Your task to perform on an android device: turn off notifications in google photos Image 0: 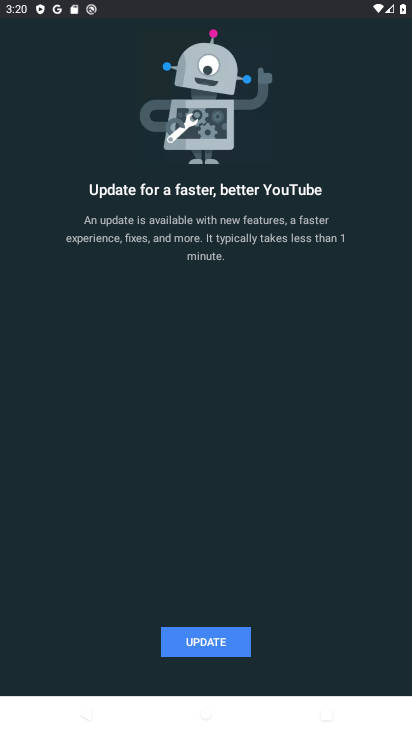
Step 0: drag from (177, 13) to (217, 335)
Your task to perform on an android device: turn off notifications in google photos Image 1: 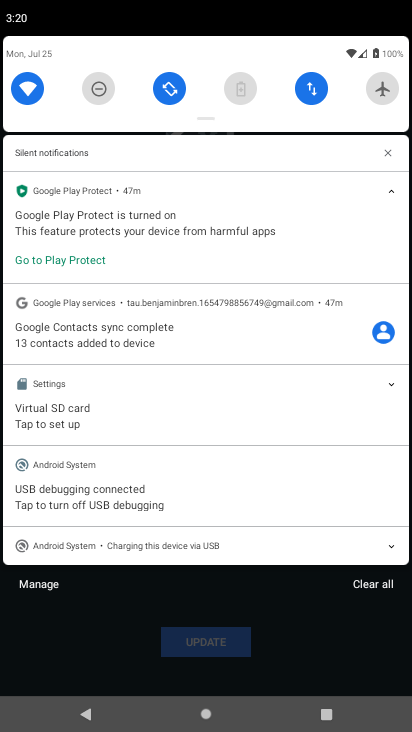
Step 1: click (32, 89)
Your task to perform on an android device: turn off notifications in google photos Image 2: 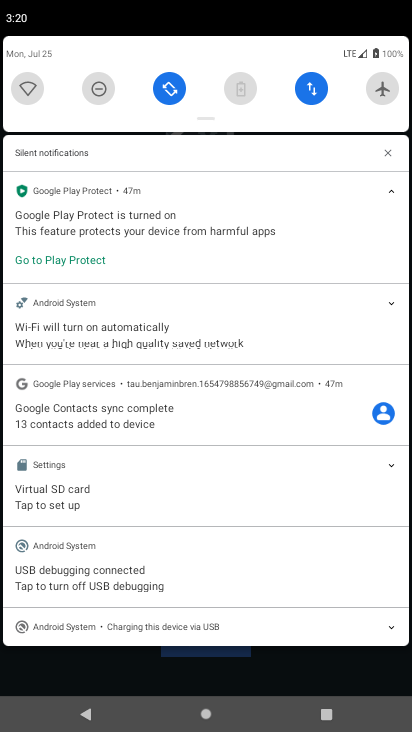
Step 2: task complete